Your task to perform on an android device: Show me recent news Image 0: 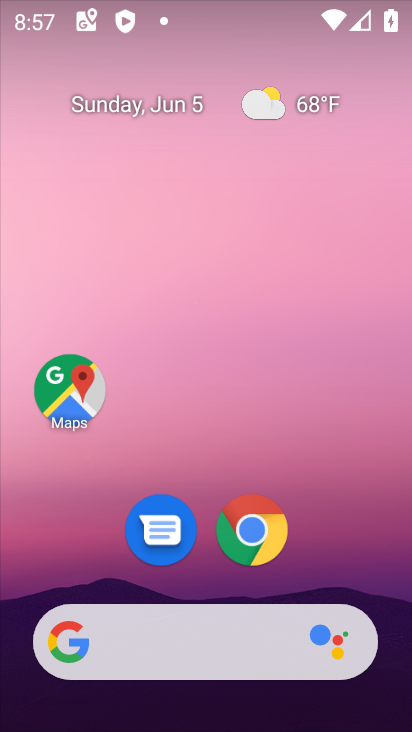
Step 0: drag from (10, 280) to (373, 258)
Your task to perform on an android device: Show me recent news Image 1: 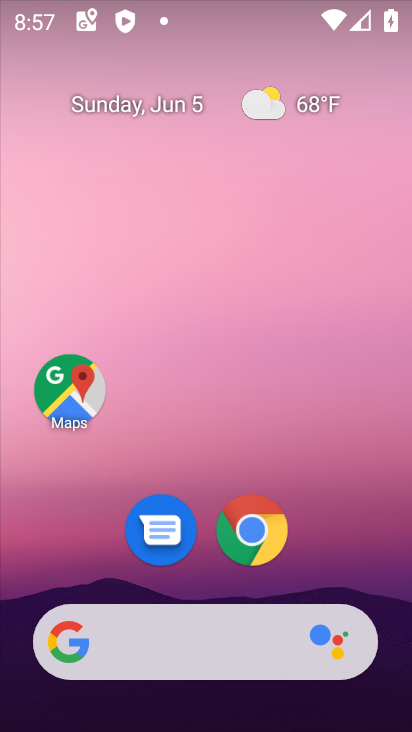
Step 1: task complete